Your task to perform on an android device: Search for vegetarian restaurants on Maps Image 0: 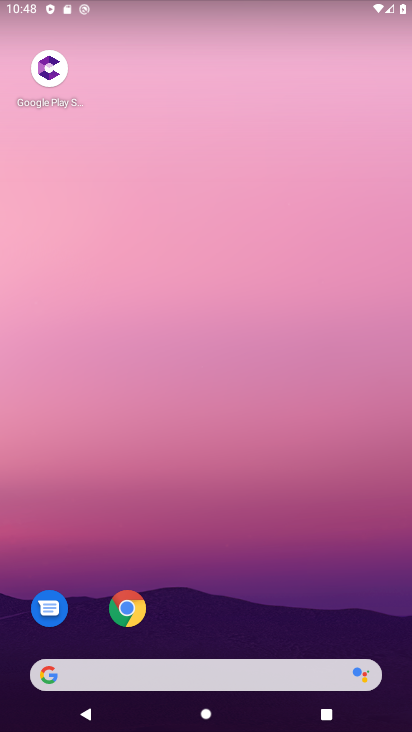
Step 0: drag from (179, 655) to (168, 234)
Your task to perform on an android device: Search for vegetarian restaurants on Maps Image 1: 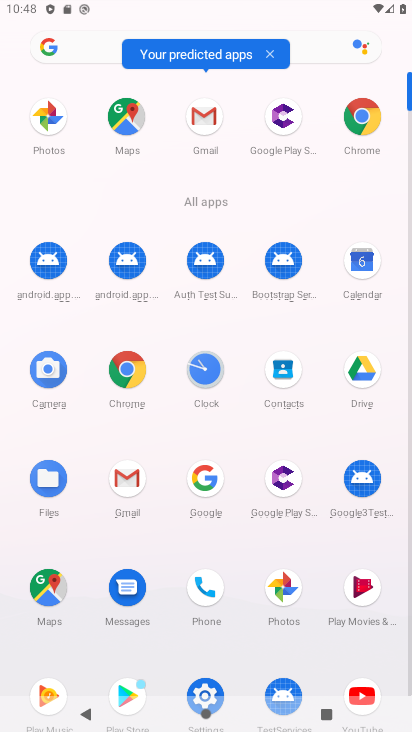
Step 1: click (42, 593)
Your task to perform on an android device: Search for vegetarian restaurants on Maps Image 2: 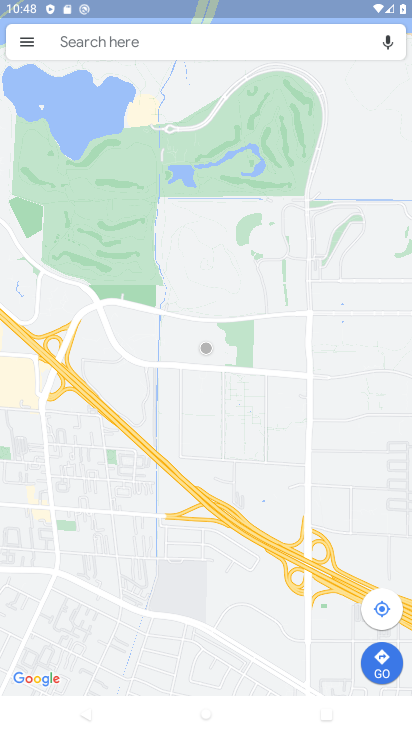
Step 2: click (76, 36)
Your task to perform on an android device: Search for vegetarian restaurants on Maps Image 3: 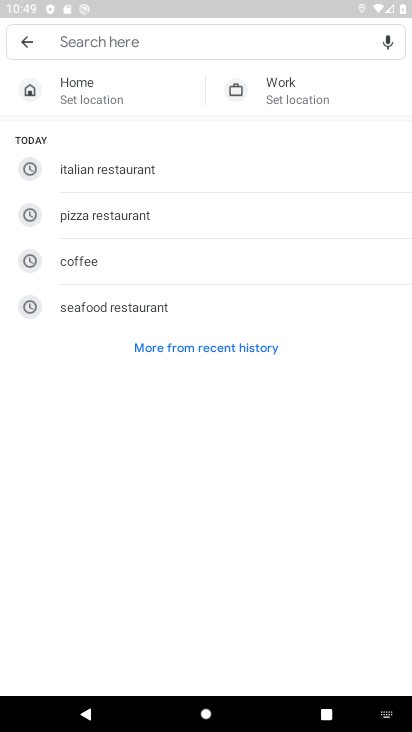
Step 3: type "vegetarian restaurants"
Your task to perform on an android device: Search for vegetarian restaurants on Maps Image 4: 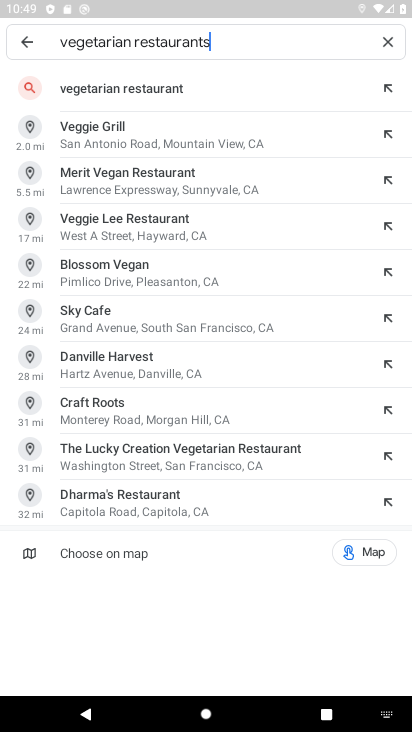
Step 4: click (164, 81)
Your task to perform on an android device: Search for vegetarian restaurants on Maps Image 5: 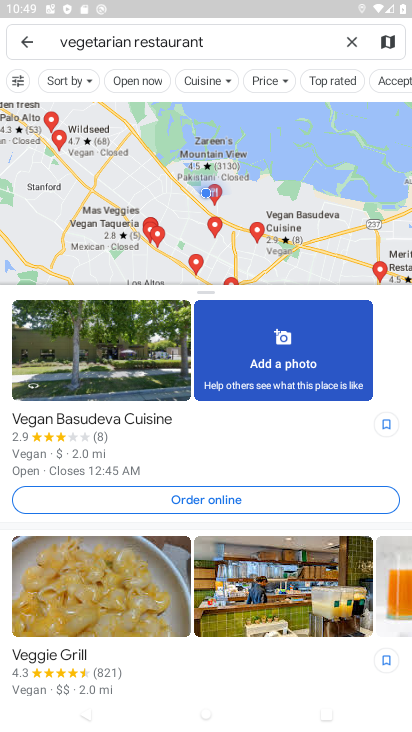
Step 5: task complete